Your task to perform on an android device: Go to battery settings Image 0: 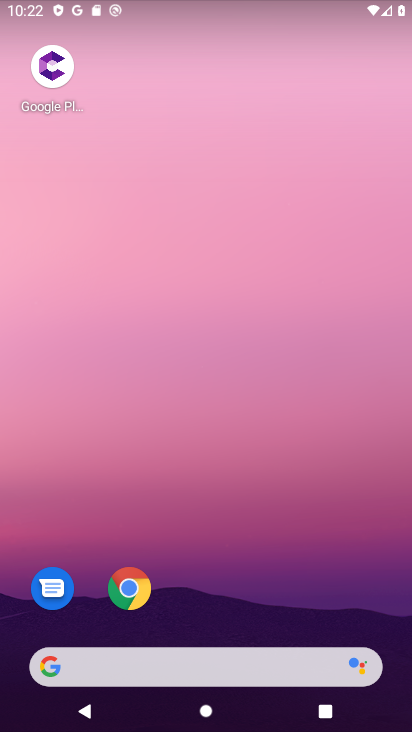
Step 0: drag from (383, 626) to (333, 218)
Your task to perform on an android device: Go to battery settings Image 1: 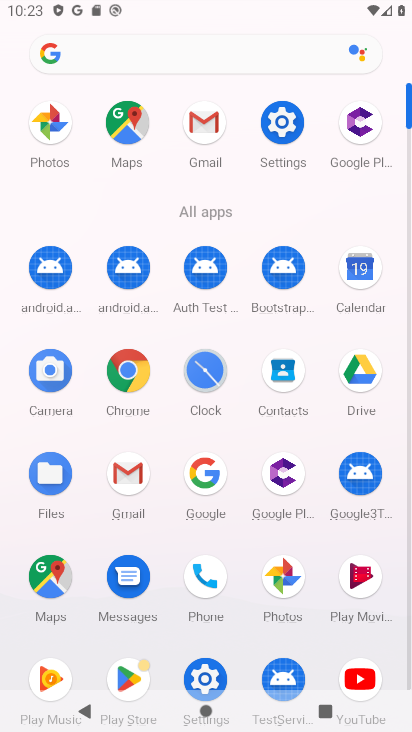
Step 1: click (206, 675)
Your task to perform on an android device: Go to battery settings Image 2: 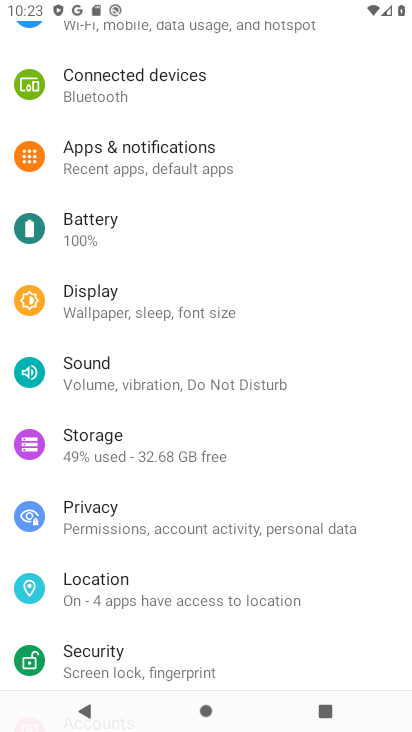
Step 2: click (91, 226)
Your task to perform on an android device: Go to battery settings Image 3: 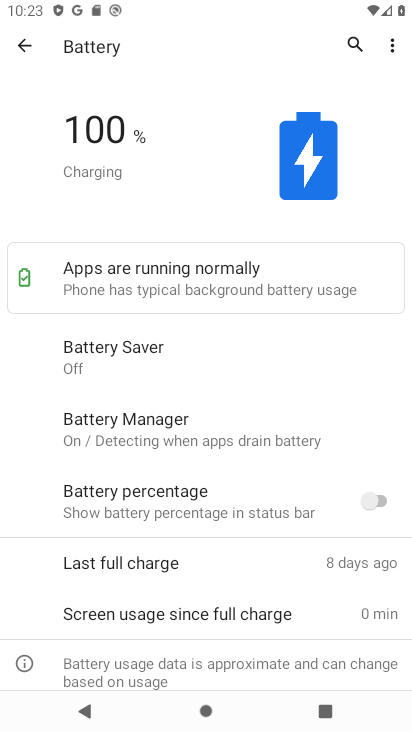
Step 3: task complete